Your task to perform on an android device: set default search engine in the chrome app Image 0: 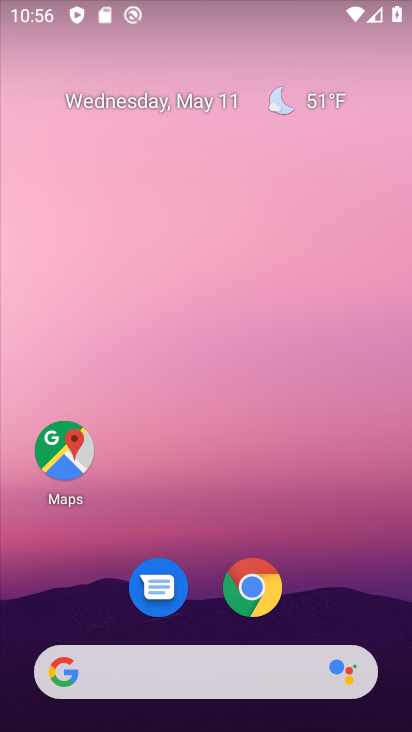
Step 0: click (255, 586)
Your task to perform on an android device: set default search engine in the chrome app Image 1: 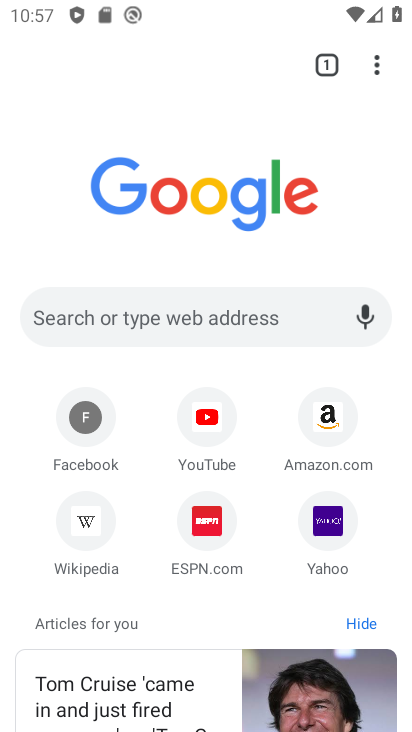
Step 1: click (379, 60)
Your task to perform on an android device: set default search engine in the chrome app Image 2: 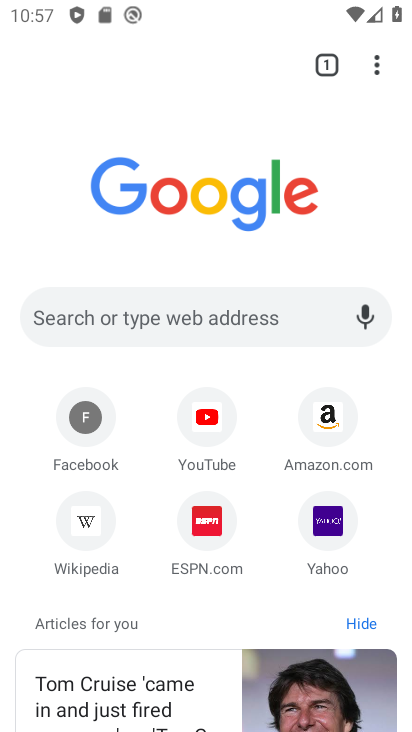
Step 2: drag from (380, 63) to (150, 547)
Your task to perform on an android device: set default search engine in the chrome app Image 3: 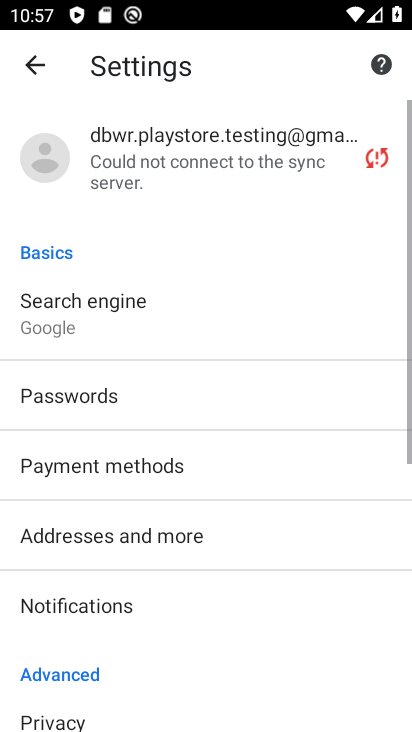
Step 3: click (80, 319)
Your task to perform on an android device: set default search engine in the chrome app Image 4: 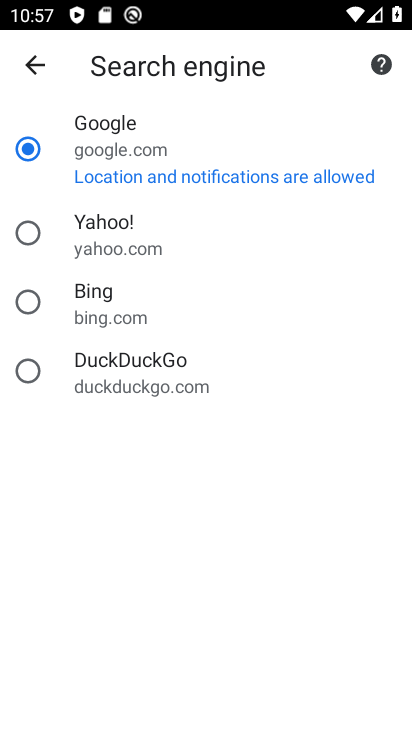
Step 4: click (98, 236)
Your task to perform on an android device: set default search engine in the chrome app Image 5: 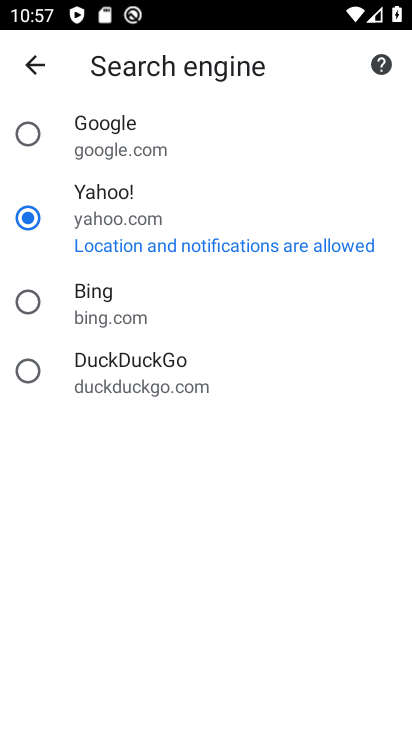
Step 5: task complete